Your task to perform on an android device: Do I have any events this weekend? Image 0: 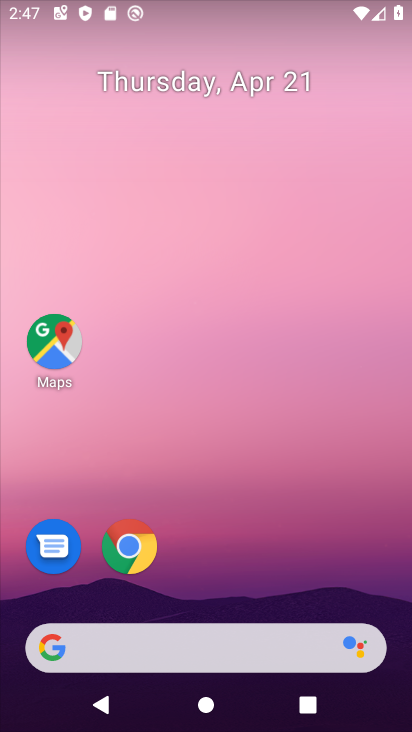
Step 0: drag from (237, 598) to (265, 59)
Your task to perform on an android device: Do I have any events this weekend? Image 1: 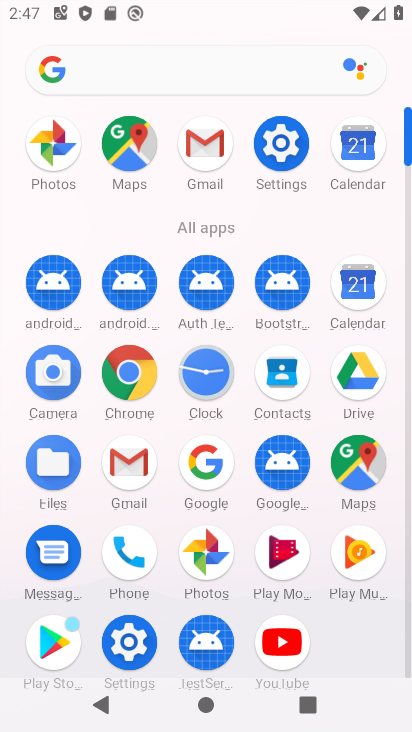
Step 1: click (358, 305)
Your task to perform on an android device: Do I have any events this weekend? Image 2: 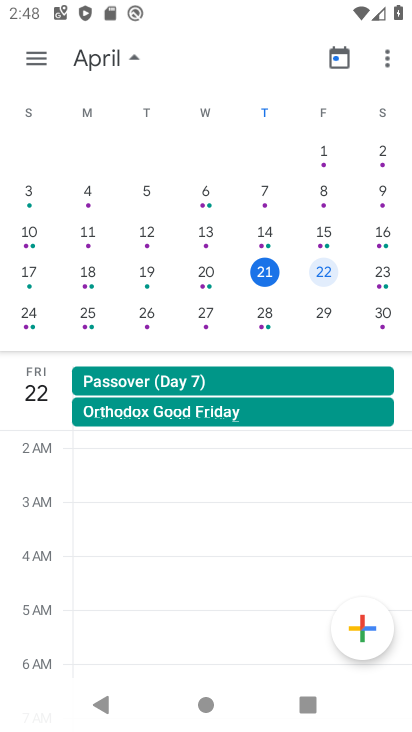
Step 2: task complete